Your task to perform on an android device: turn off translation in the chrome app Image 0: 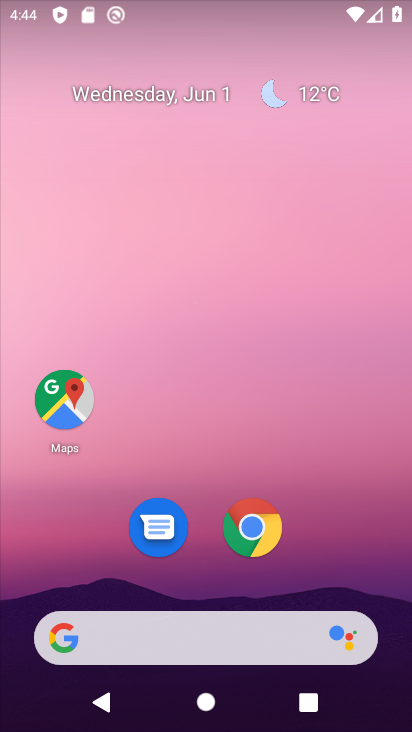
Step 0: click (262, 533)
Your task to perform on an android device: turn off translation in the chrome app Image 1: 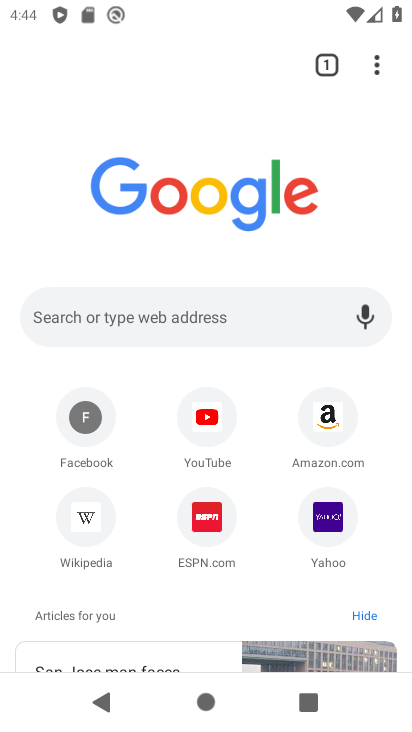
Step 1: click (387, 61)
Your task to perform on an android device: turn off translation in the chrome app Image 2: 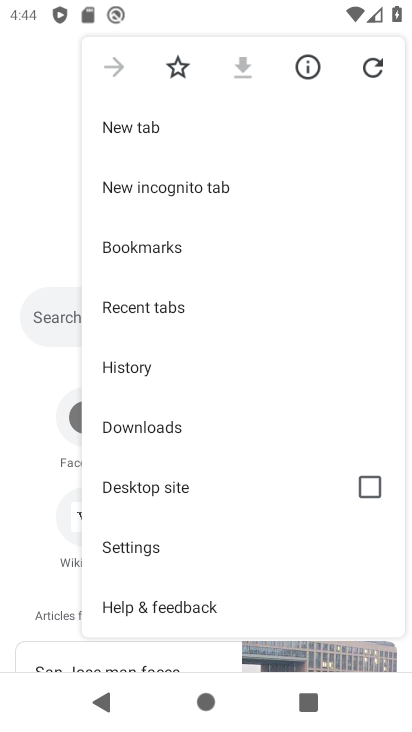
Step 2: click (382, 64)
Your task to perform on an android device: turn off translation in the chrome app Image 3: 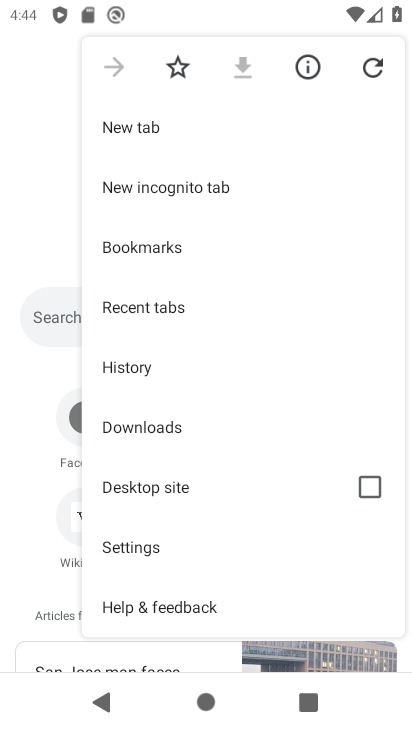
Step 3: click (386, 57)
Your task to perform on an android device: turn off translation in the chrome app Image 4: 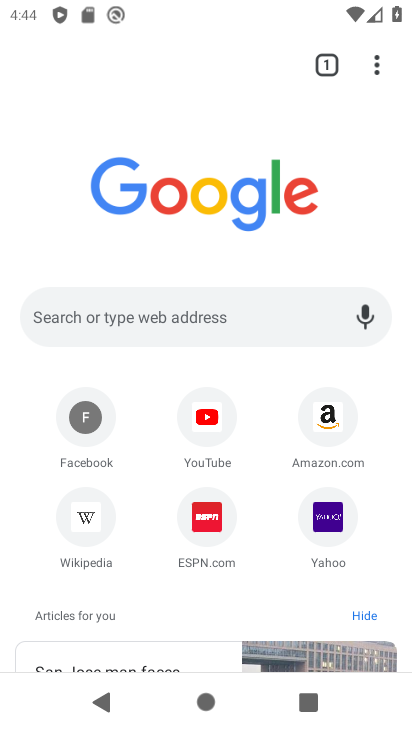
Step 4: click (375, 57)
Your task to perform on an android device: turn off translation in the chrome app Image 5: 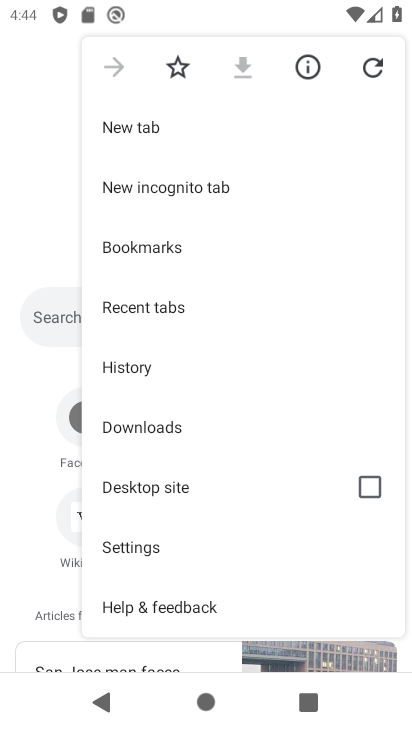
Step 5: click (145, 544)
Your task to perform on an android device: turn off translation in the chrome app Image 6: 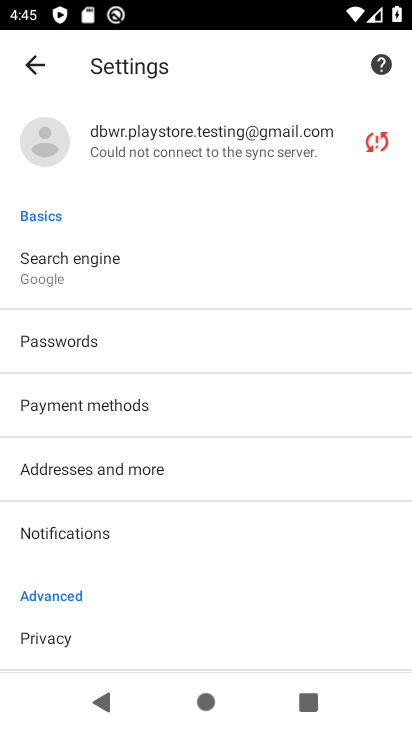
Step 6: drag from (113, 576) to (131, 173)
Your task to perform on an android device: turn off translation in the chrome app Image 7: 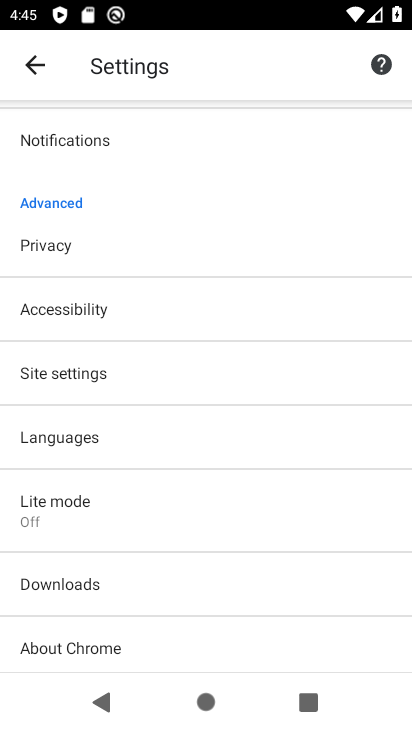
Step 7: drag from (108, 608) to (191, 130)
Your task to perform on an android device: turn off translation in the chrome app Image 8: 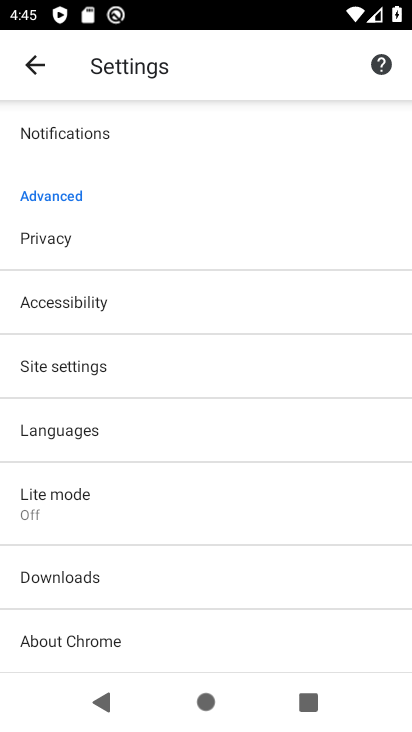
Step 8: drag from (160, 604) to (163, 133)
Your task to perform on an android device: turn off translation in the chrome app Image 9: 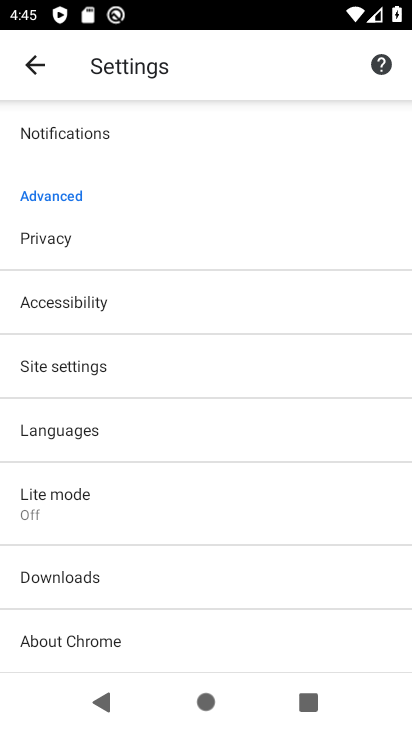
Step 9: click (120, 435)
Your task to perform on an android device: turn off translation in the chrome app Image 10: 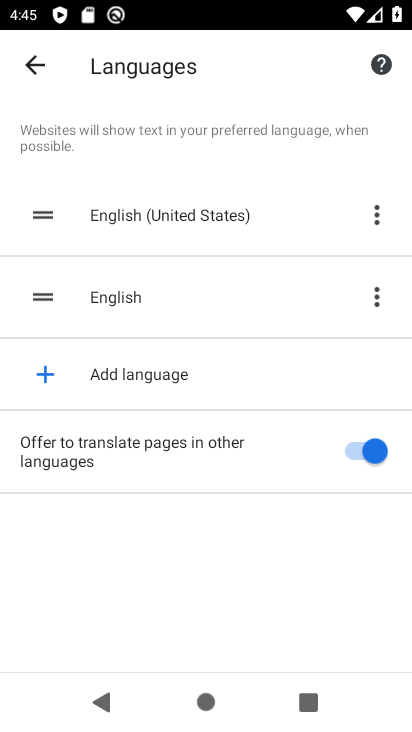
Step 10: click (354, 444)
Your task to perform on an android device: turn off translation in the chrome app Image 11: 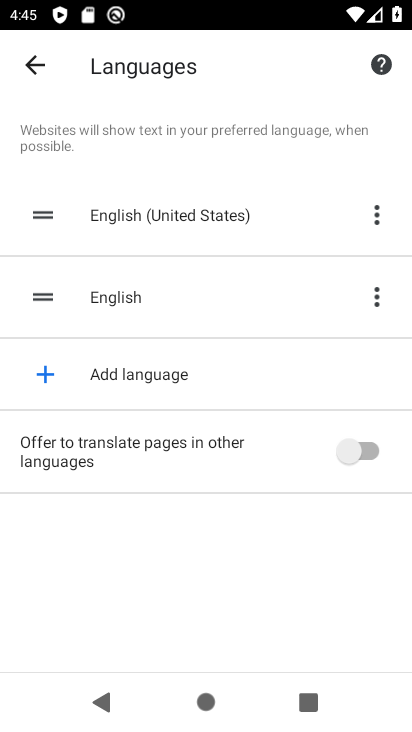
Step 11: task complete